Your task to perform on an android device: Open Chrome and go to settings Image 0: 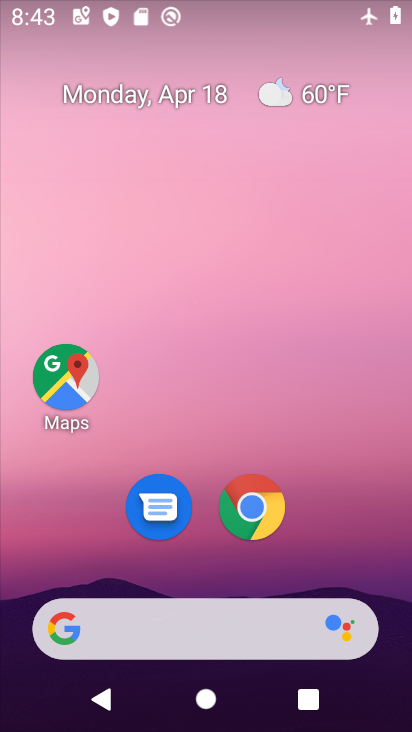
Step 0: click (268, 522)
Your task to perform on an android device: Open Chrome and go to settings Image 1: 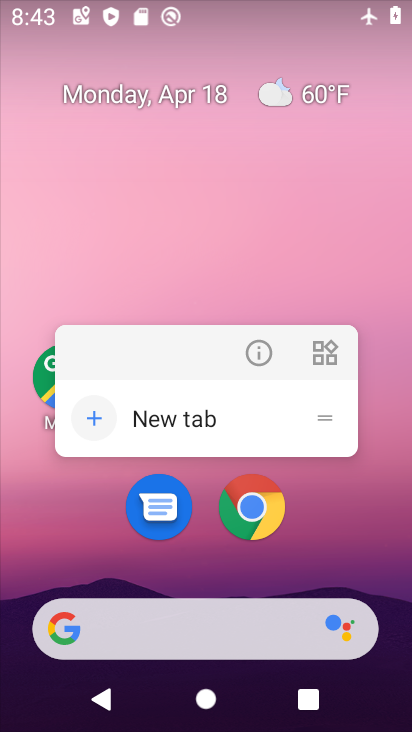
Step 1: click (268, 520)
Your task to perform on an android device: Open Chrome and go to settings Image 2: 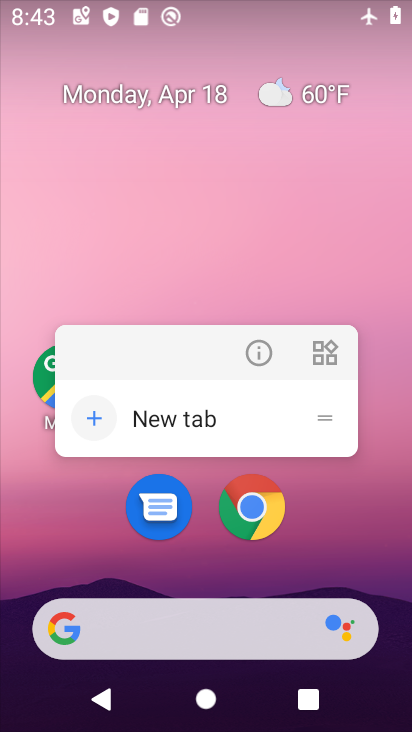
Step 2: click (256, 514)
Your task to perform on an android device: Open Chrome and go to settings Image 3: 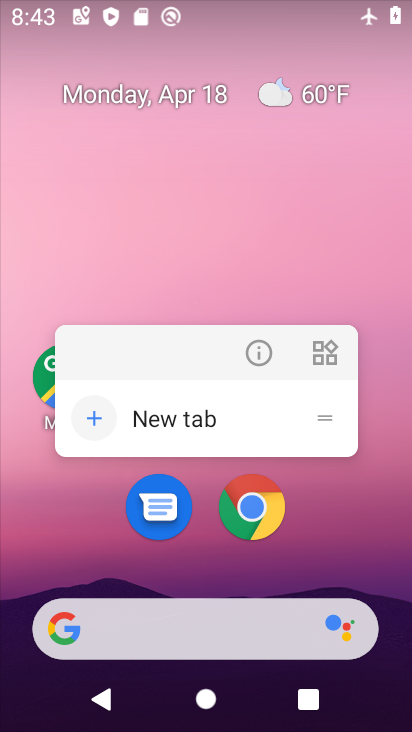
Step 3: click (257, 515)
Your task to perform on an android device: Open Chrome and go to settings Image 4: 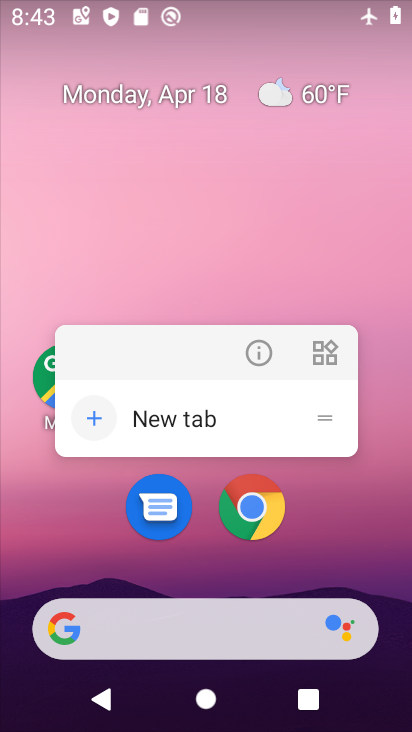
Step 4: click (261, 522)
Your task to perform on an android device: Open Chrome and go to settings Image 5: 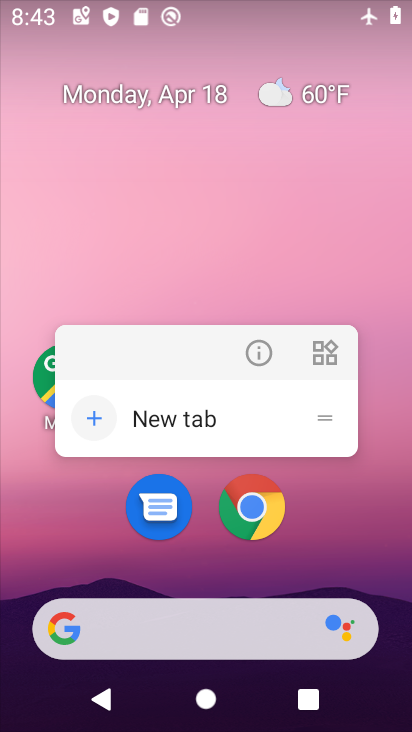
Step 5: click (267, 514)
Your task to perform on an android device: Open Chrome and go to settings Image 6: 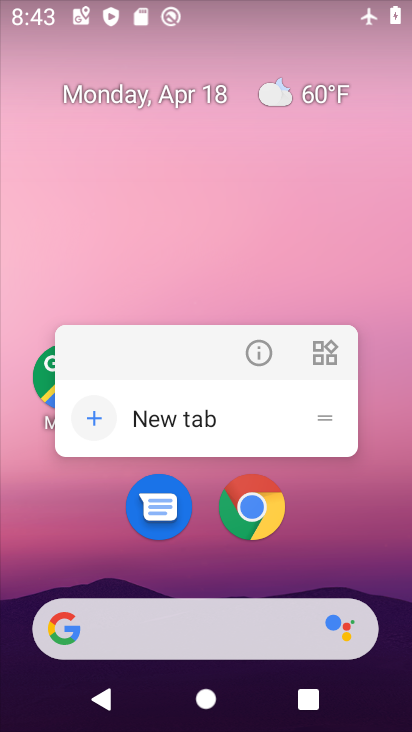
Step 6: click (267, 514)
Your task to perform on an android device: Open Chrome and go to settings Image 7: 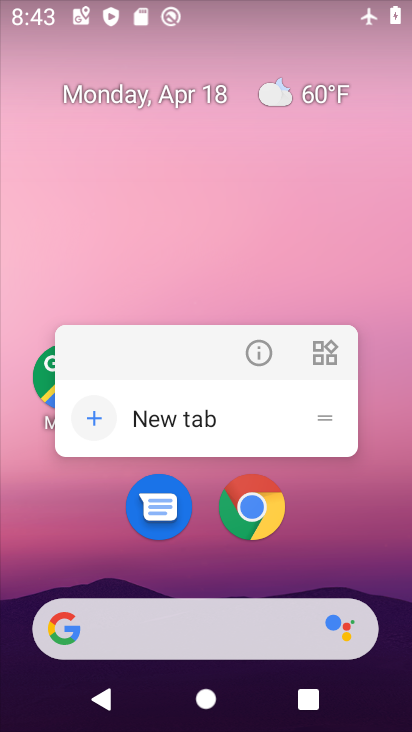
Step 7: click (267, 514)
Your task to perform on an android device: Open Chrome and go to settings Image 8: 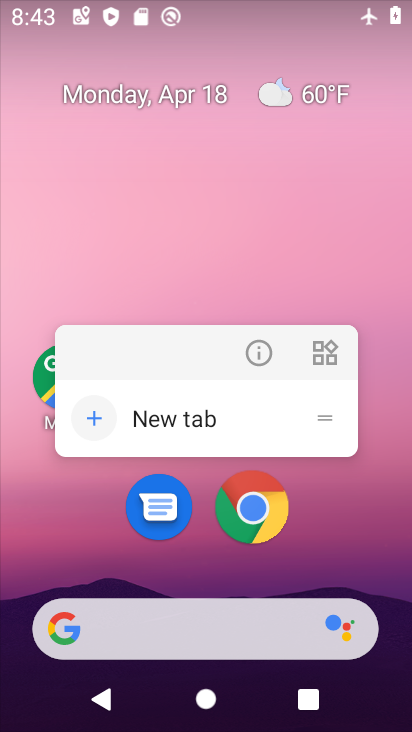
Step 8: click (267, 514)
Your task to perform on an android device: Open Chrome and go to settings Image 9: 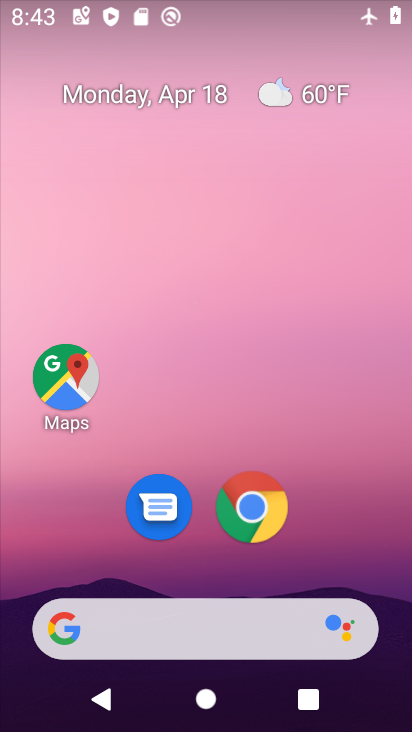
Step 9: click (267, 514)
Your task to perform on an android device: Open Chrome and go to settings Image 10: 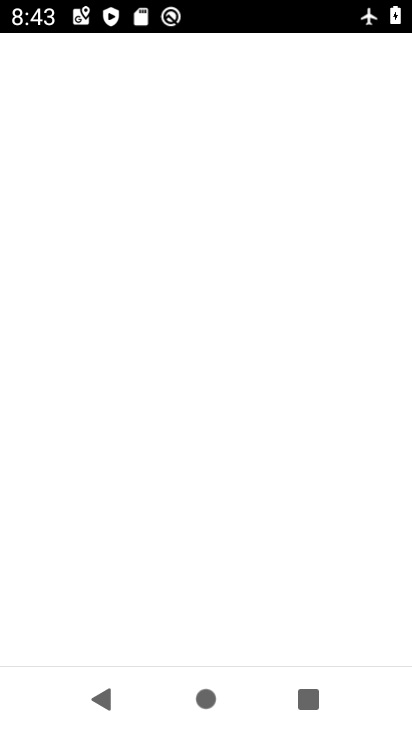
Step 10: drag from (297, 514) to (237, 514)
Your task to perform on an android device: Open Chrome and go to settings Image 11: 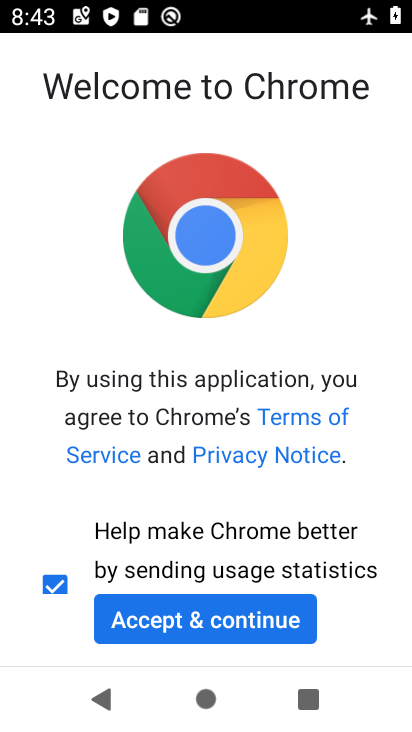
Step 11: click (212, 634)
Your task to perform on an android device: Open Chrome and go to settings Image 12: 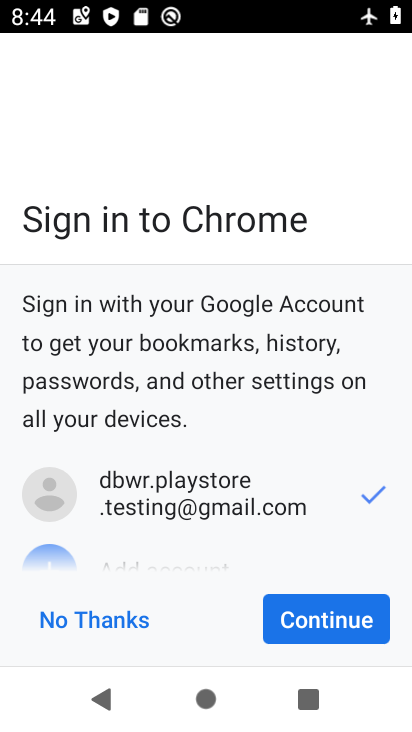
Step 12: click (313, 634)
Your task to perform on an android device: Open Chrome and go to settings Image 13: 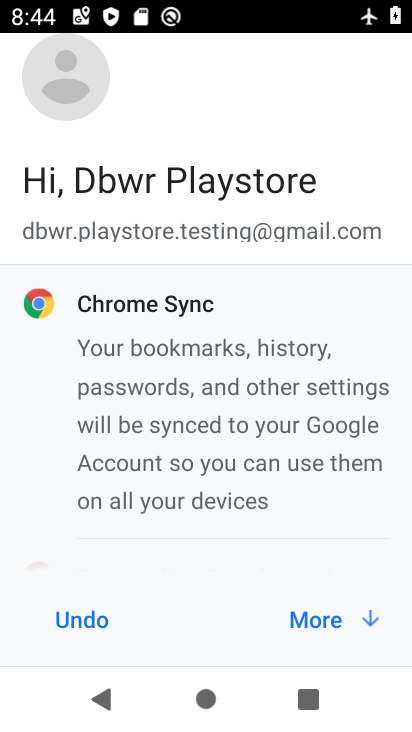
Step 13: click (312, 628)
Your task to perform on an android device: Open Chrome and go to settings Image 14: 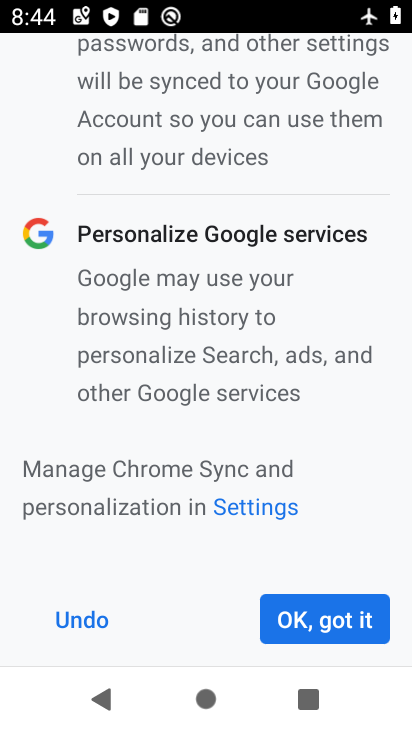
Step 14: click (294, 620)
Your task to perform on an android device: Open Chrome and go to settings Image 15: 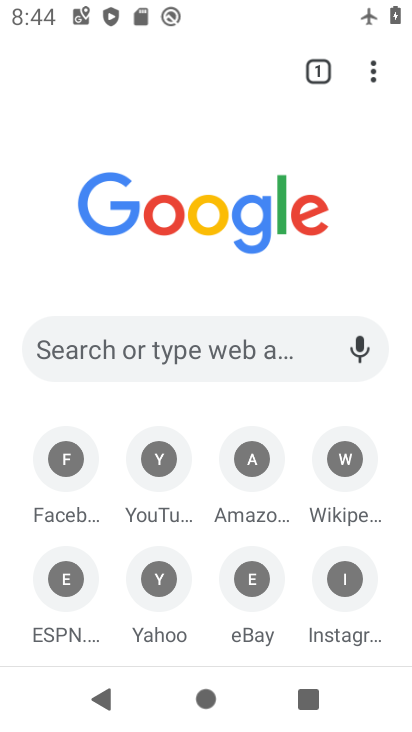
Step 15: click (367, 71)
Your task to perform on an android device: Open Chrome and go to settings Image 16: 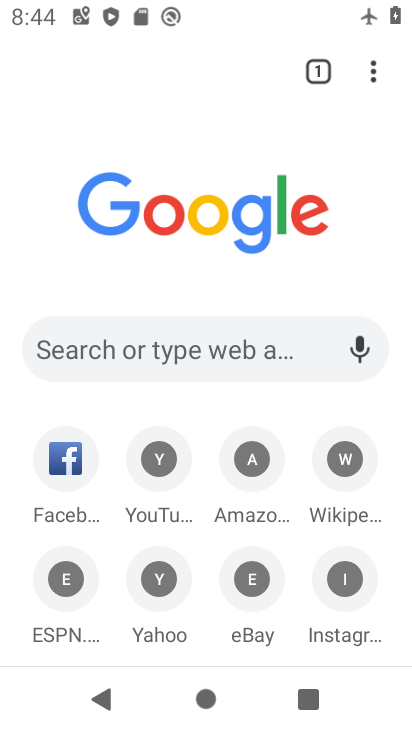
Step 16: task complete